Your task to perform on an android device: Open calendar and show me the third week of next month Image 0: 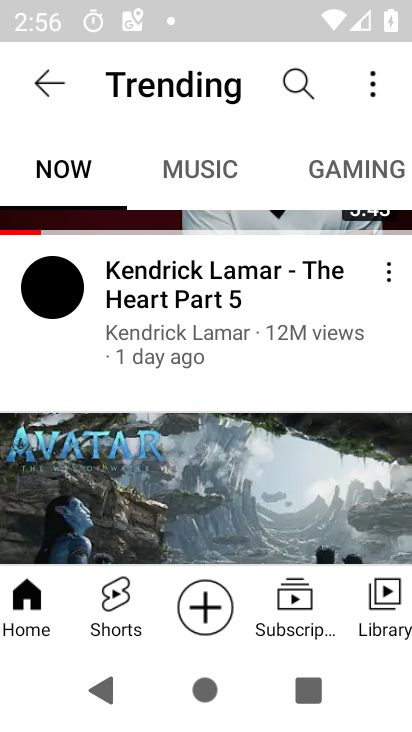
Step 0: drag from (179, 506) to (261, 98)
Your task to perform on an android device: Open calendar and show me the third week of next month Image 1: 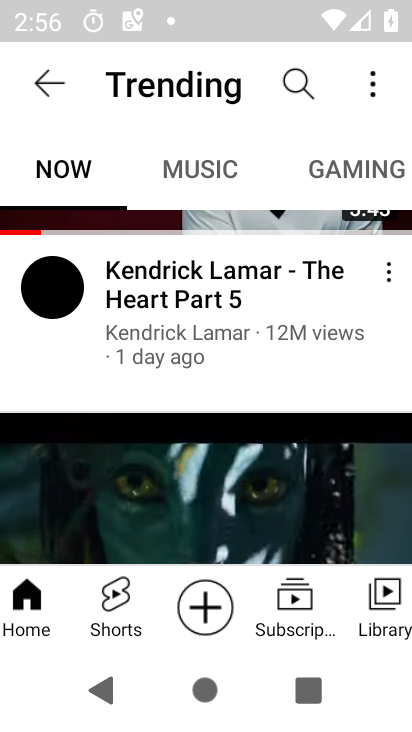
Step 1: press back button
Your task to perform on an android device: Open calendar and show me the third week of next month Image 2: 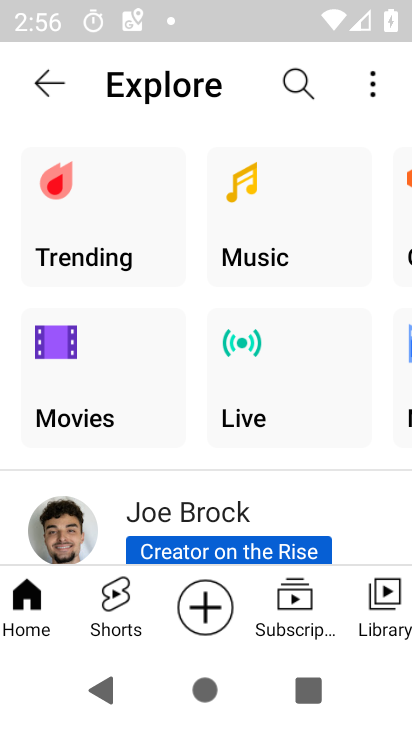
Step 2: press home button
Your task to perform on an android device: Open calendar and show me the third week of next month Image 3: 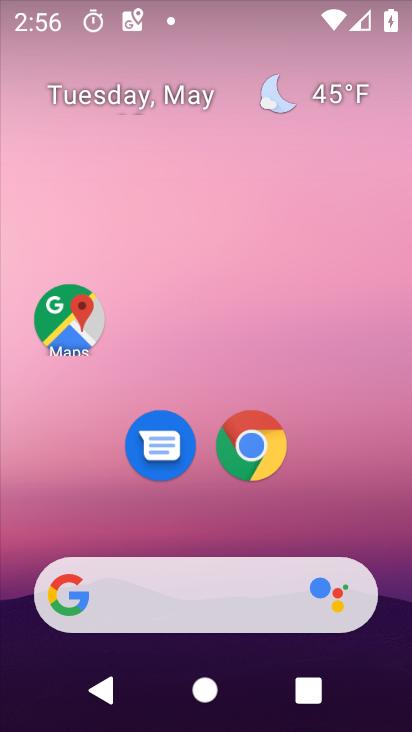
Step 3: drag from (186, 545) to (253, 103)
Your task to perform on an android device: Open calendar and show me the third week of next month Image 4: 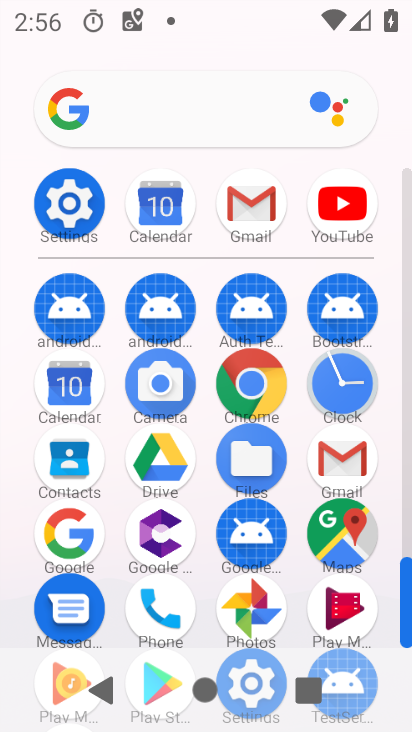
Step 4: click (149, 205)
Your task to perform on an android device: Open calendar and show me the third week of next month Image 5: 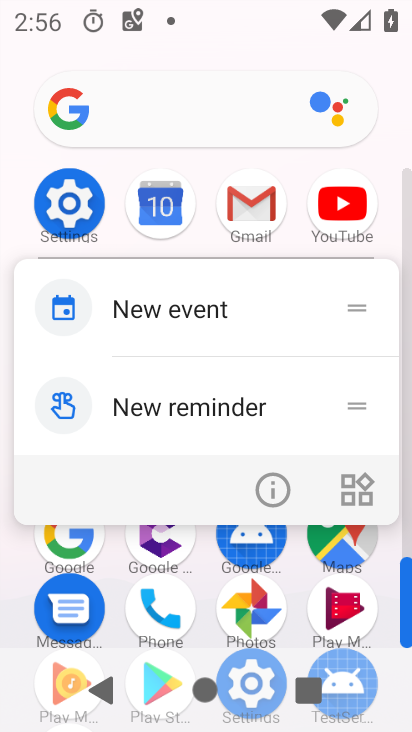
Step 5: click (173, 207)
Your task to perform on an android device: Open calendar and show me the third week of next month Image 6: 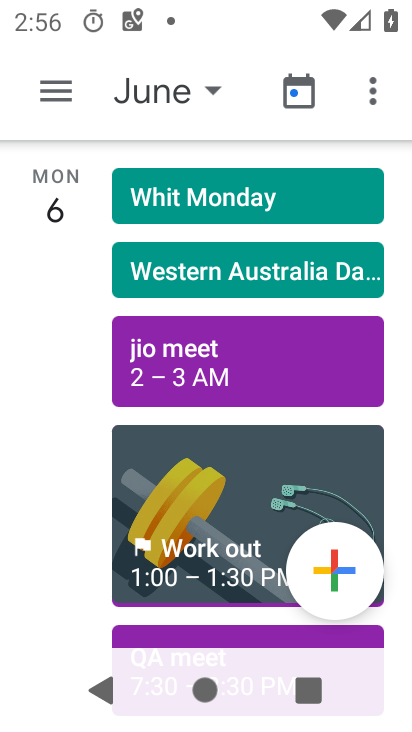
Step 6: click (197, 83)
Your task to perform on an android device: Open calendar and show me the third week of next month Image 7: 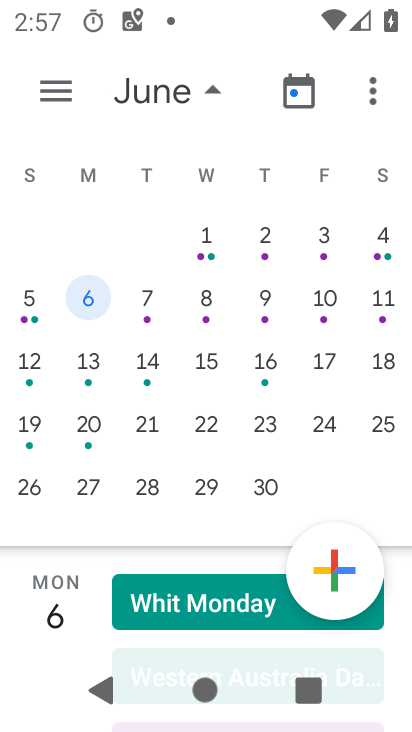
Step 7: click (85, 356)
Your task to perform on an android device: Open calendar and show me the third week of next month Image 8: 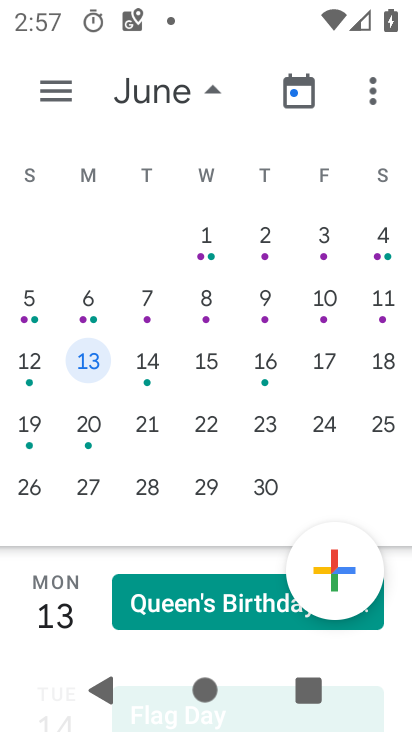
Step 8: task complete